Your task to perform on an android device: Open Maps and search for coffee Image 0: 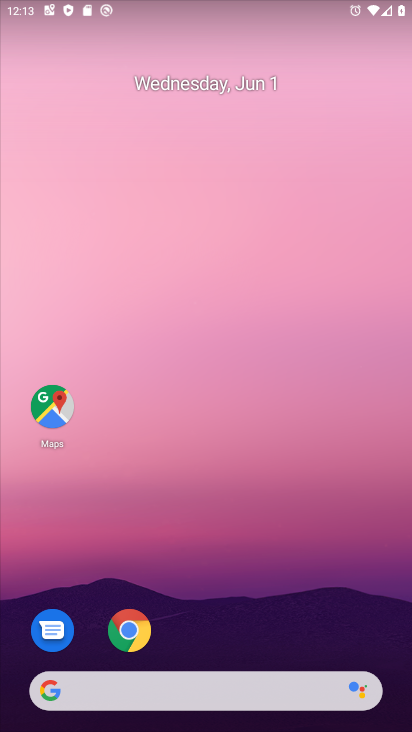
Step 0: click (28, 394)
Your task to perform on an android device: Open Maps and search for coffee Image 1: 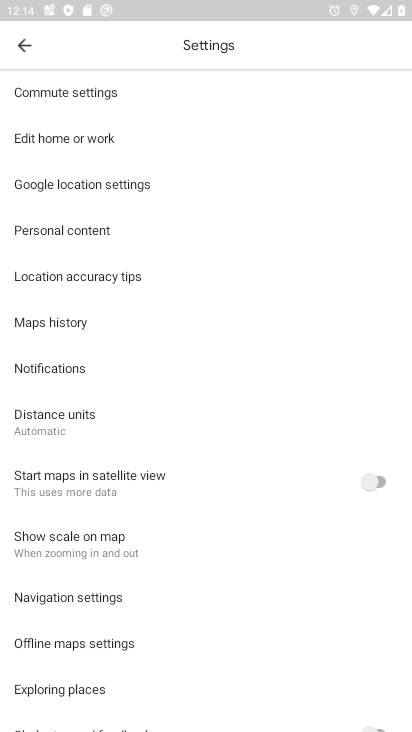
Step 1: press home button
Your task to perform on an android device: Open Maps and search for coffee Image 2: 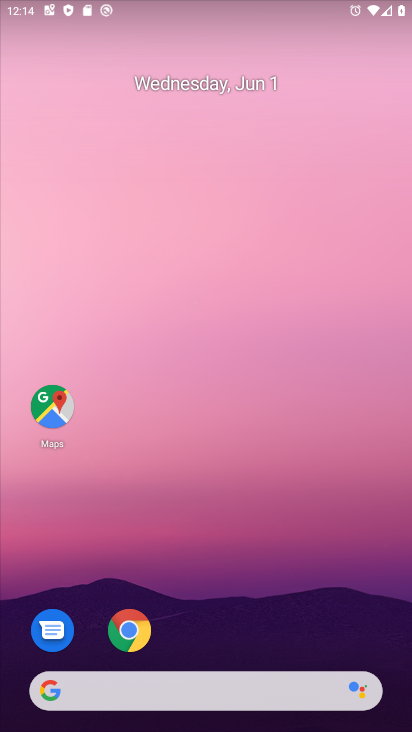
Step 2: click (47, 410)
Your task to perform on an android device: Open Maps and search for coffee Image 3: 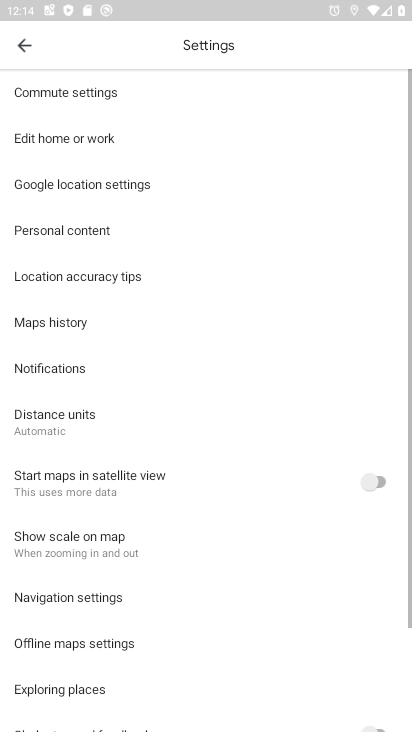
Step 3: click (14, 47)
Your task to perform on an android device: Open Maps and search for coffee Image 4: 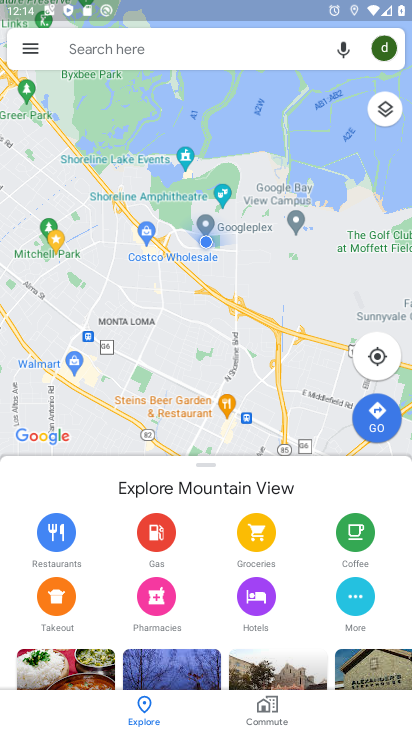
Step 4: click (110, 47)
Your task to perform on an android device: Open Maps and search for coffee Image 5: 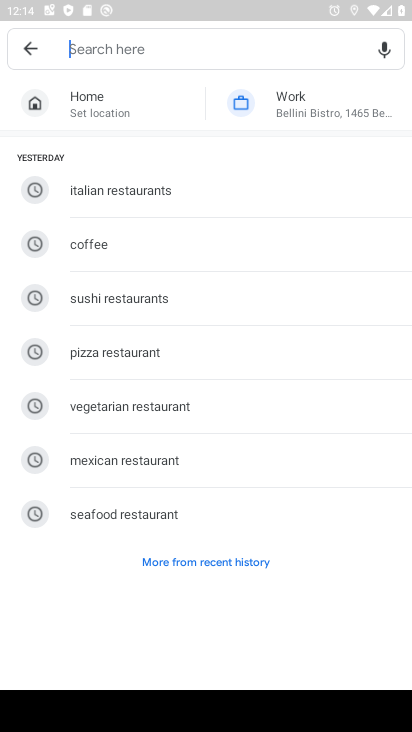
Step 5: click (110, 242)
Your task to perform on an android device: Open Maps and search for coffee Image 6: 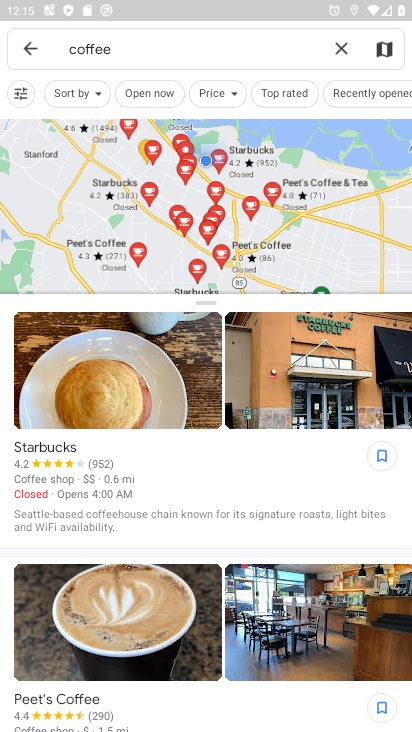
Step 6: task complete